Your task to perform on an android device: check the backup settings in the google photos Image 0: 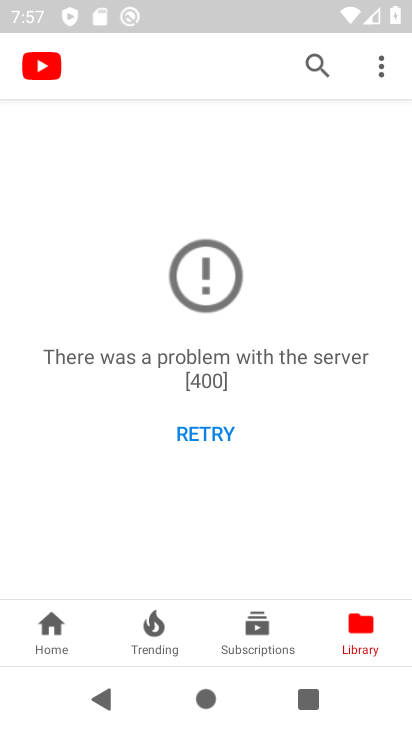
Step 0: press home button
Your task to perform on an android device: check the backup settings in the google photos Image 1: 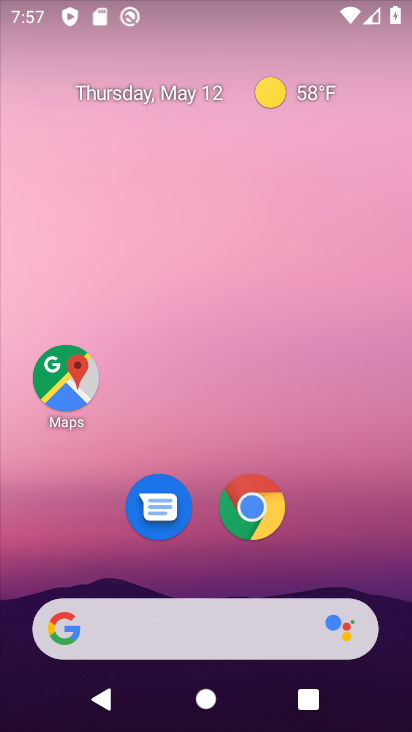
Step 1: drag from (215, 428) to (215, 170)
Your task to perform on an android device: check the backup settings in the google photos Image 2: 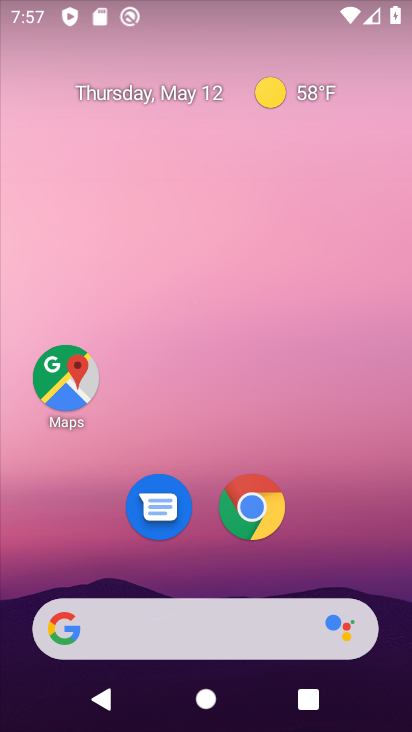
Step 2: drag from (206, 567) to (215, 103)
Your task to perform on an android device: check the backup settings in the google photos Image 3: 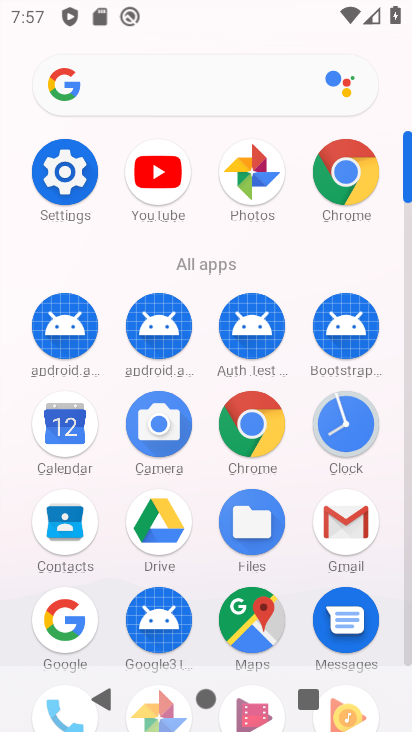
Step 3: click (222, 168)
Your task to perform on an android device: check the backup settings in the google photos Image 4: 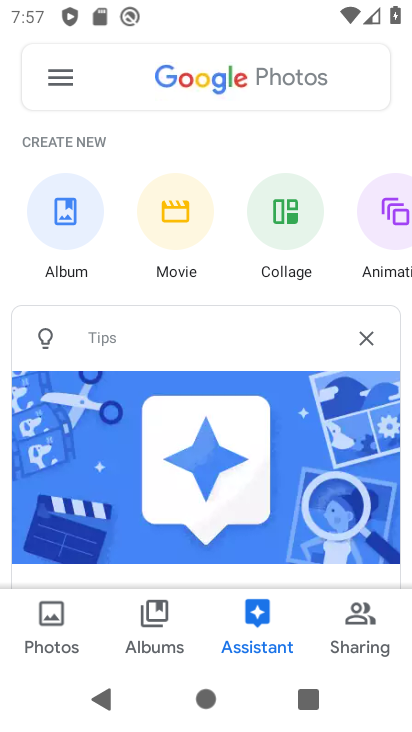
Step 4: click (49, 68)
Your task to perform on an android device: check the backup settings in the google photos Image 5: 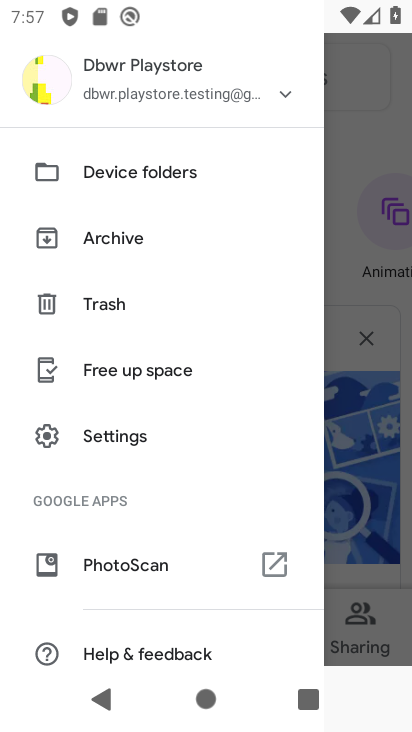
Step 5: drag from (114, 562) to (124, 206)
Your task to perform on an android device: check the backup settings in the google photos Image 6: 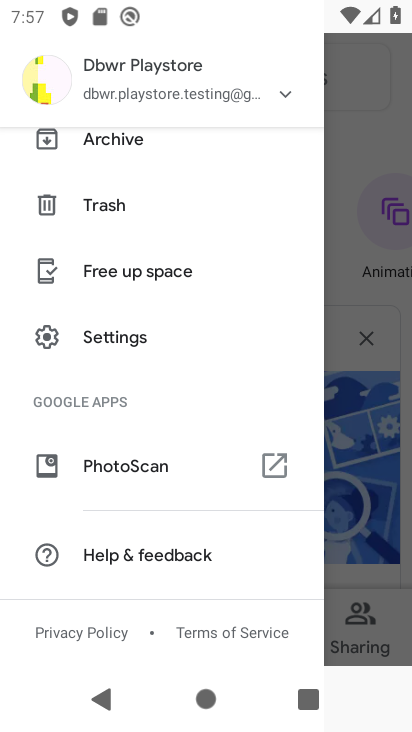
Step 6: click (117, 333)
Your task to perform on an android device: check the backup settings in the google photos Image 7: 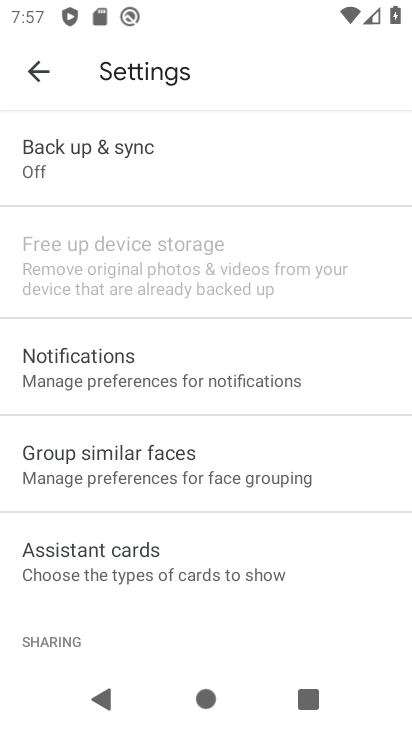
Step 7: click (194, 159)
Your task to perform on an android device: check the backup settings in the google photos Image 8: 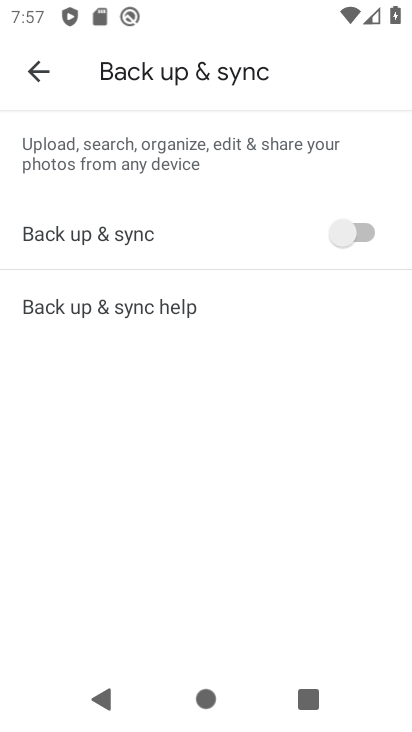
Step 8: task complete